Your task to perform on an android device: check data usage Image 0: 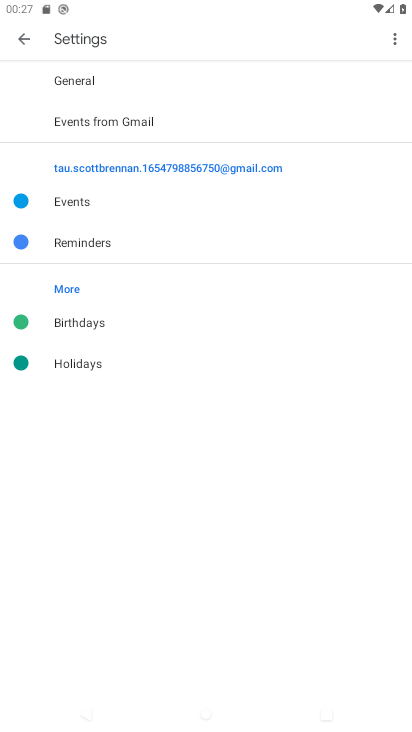
Step 0: press home button
Your task to perform on an android device: check data usage Image 1: 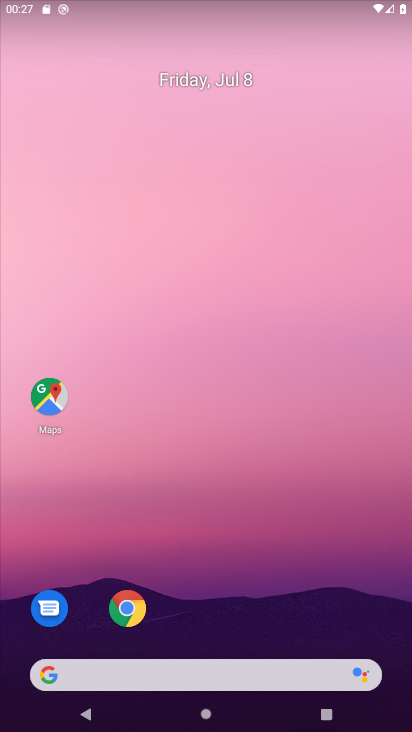
Step 1: drag from (278, 568) to (272, 217)
Your task to perform on an android device: check data usage Image 2: 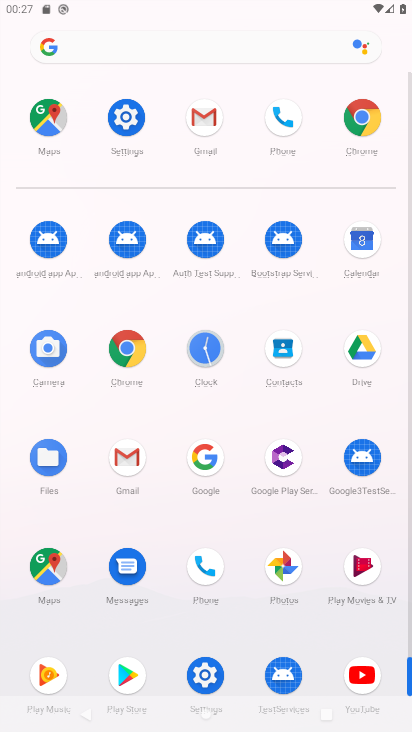
Step 2: click (109, 106)
Your task to perform on an android device: check data usage Image 3: 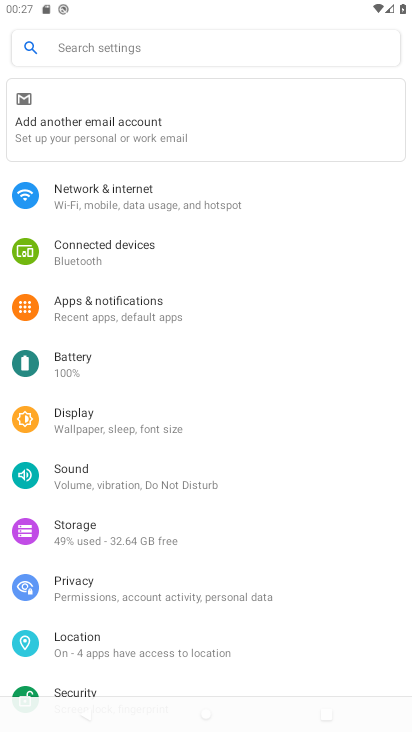
Step 3: click (153, 171)
Your task to perform on an android device: check data usage Image 4: 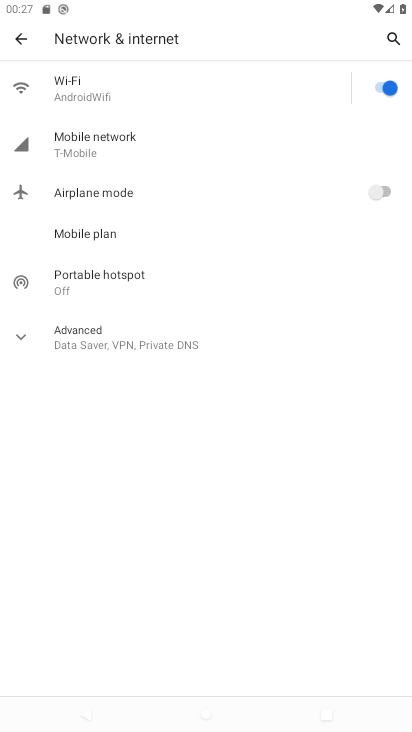
Step 4: click (139, 351)
Your task to perform on an android device: check data usage Image 5: 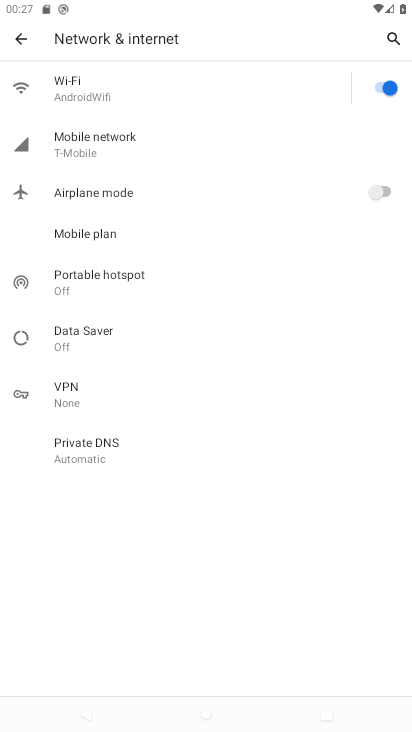
Step 5: click (76, 335)
Your task to perform on an android device: check data usage Image 6: 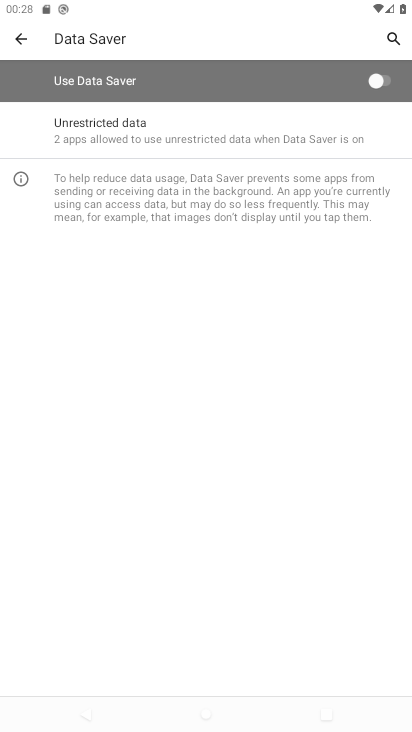
Step 6: task complete